Your task to perform on an android device: Open the web browser Image 0: 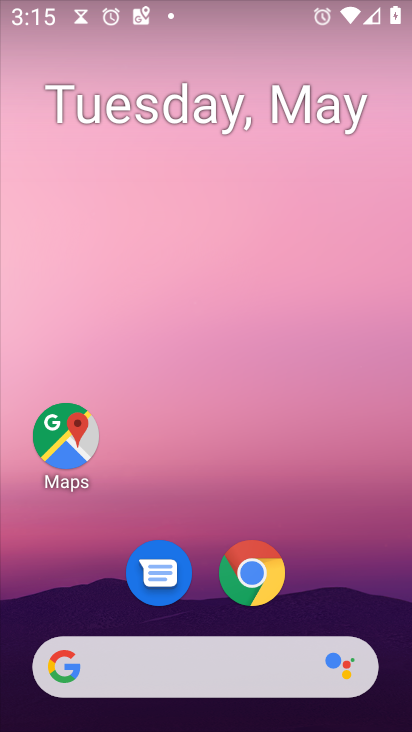
Step 0: drag from (315, 607) to (317, 33)
Your task to perform on an android device: Open the web browser Image 1: 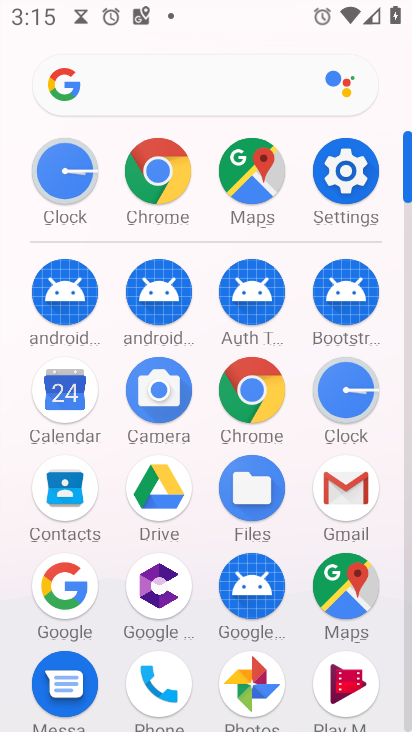
Step 1: drag from (16, 624) to (16, 276)
Your task to perform on an android device: Open the web browser Image 2: 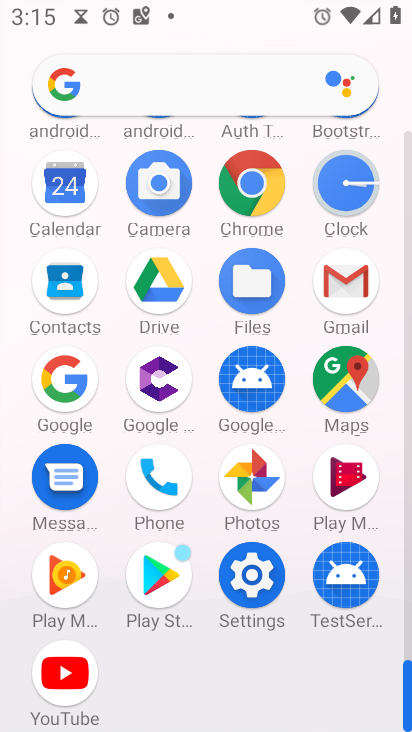
Step 2: click (247, 170)
Your task to perform on an android device: Open the web browser Image 3: 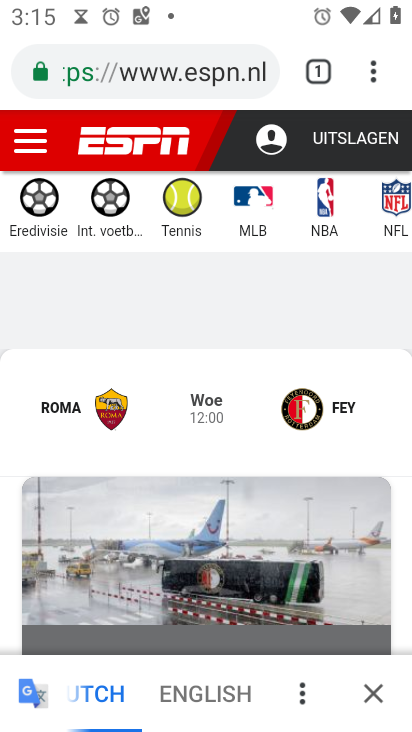
Step 3: task complete